Your task to perform on an android device: Search for "panasonic triple a" on costco.com, select the first entry, add it to the cart, then select checkout. Image 0: 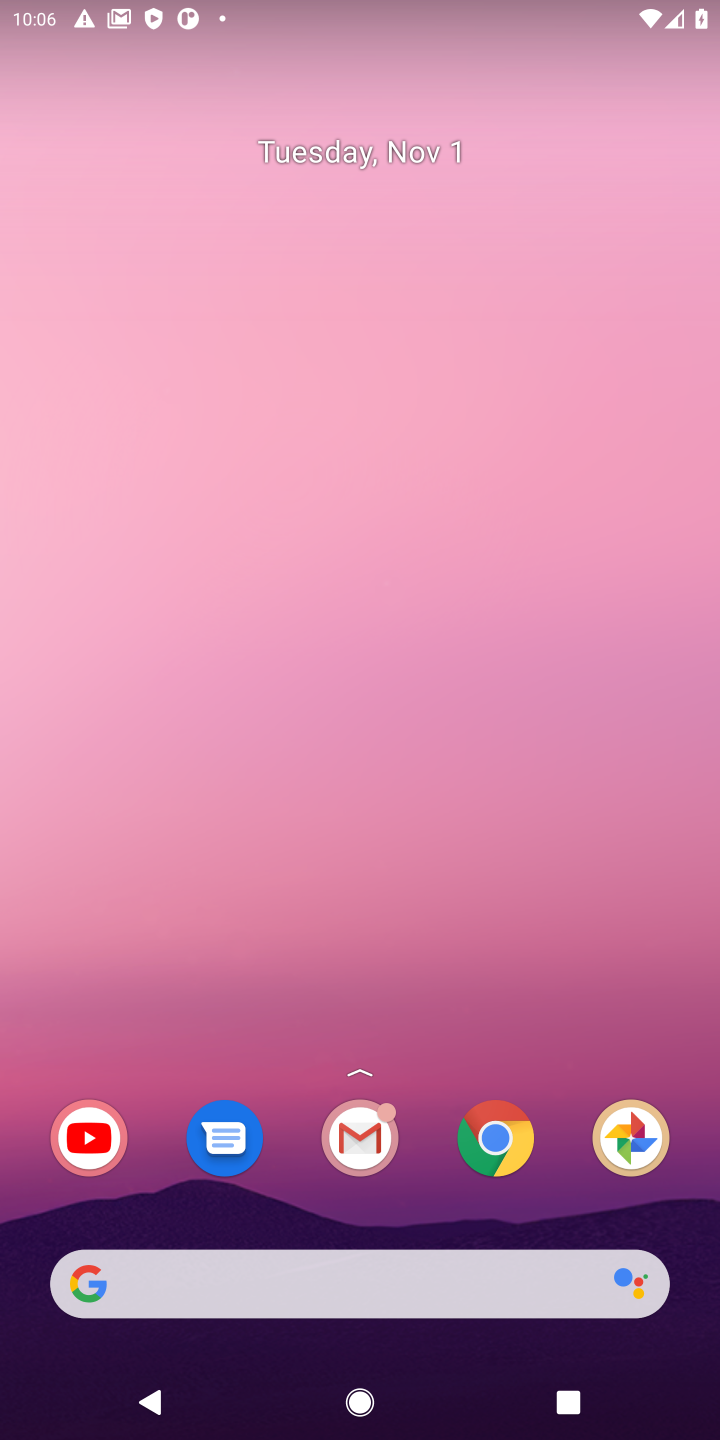
Step 0: click (496, 1147)
Your task to perform on an android device: Search for "panasonic triple a" on costco.com, select the first entry, add it to the cart, then select checkout. Image 1: 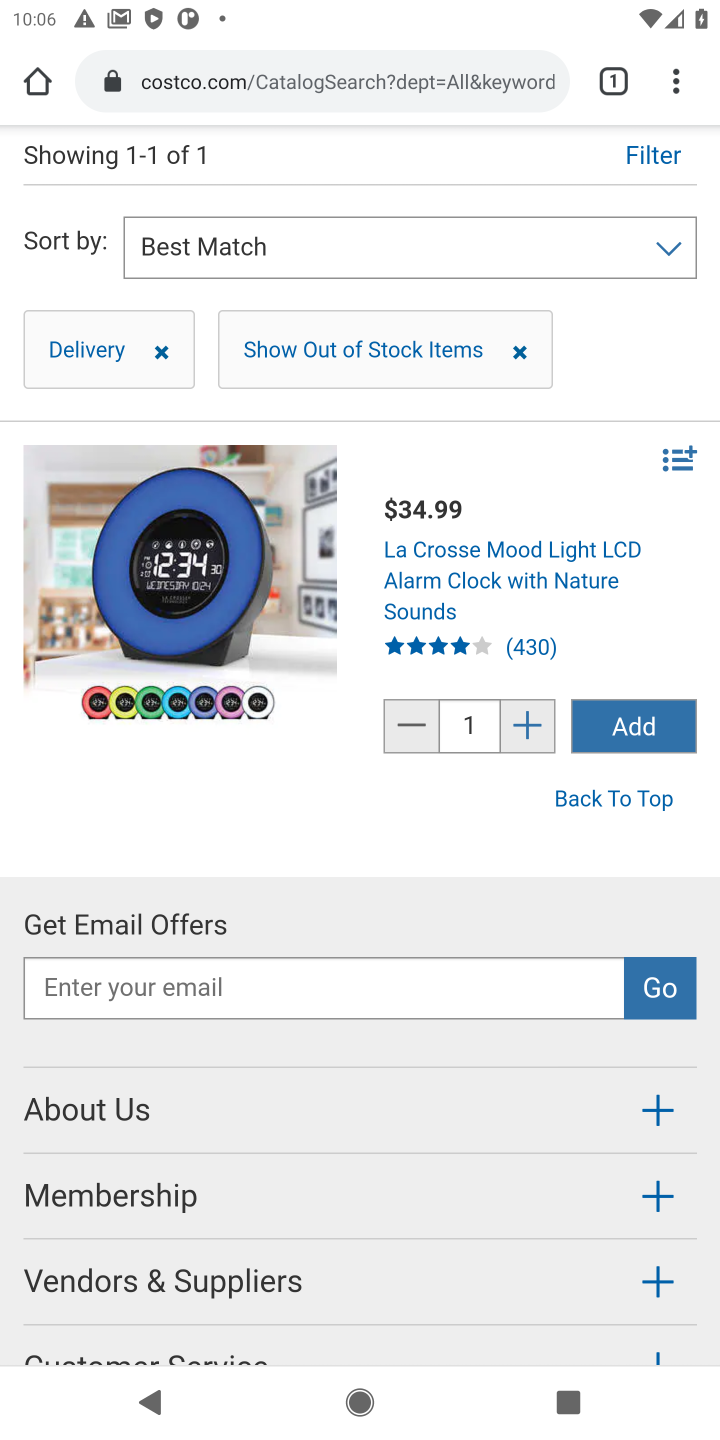
Step 1: click (261, 91)
Your task to perform on an android device: Search for "panasonic triple a" on costco.com, select the first entry, add it to the cart, then select checkout. Image 2: 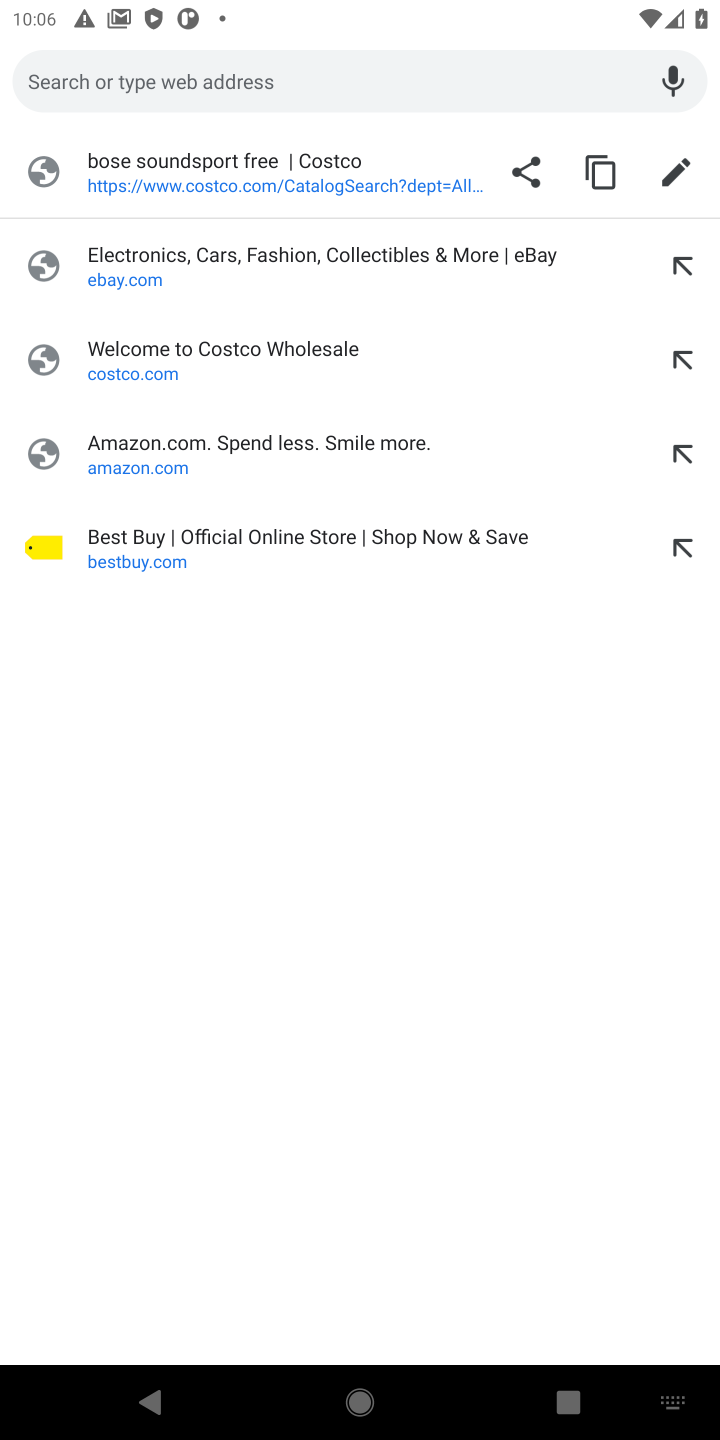
Step 2: type "costco.com"
Your task to perform on an android device: Search for "panasonic triple a" on costco.com, select the first entry, add it to the cart, then select checkout. Image 3: 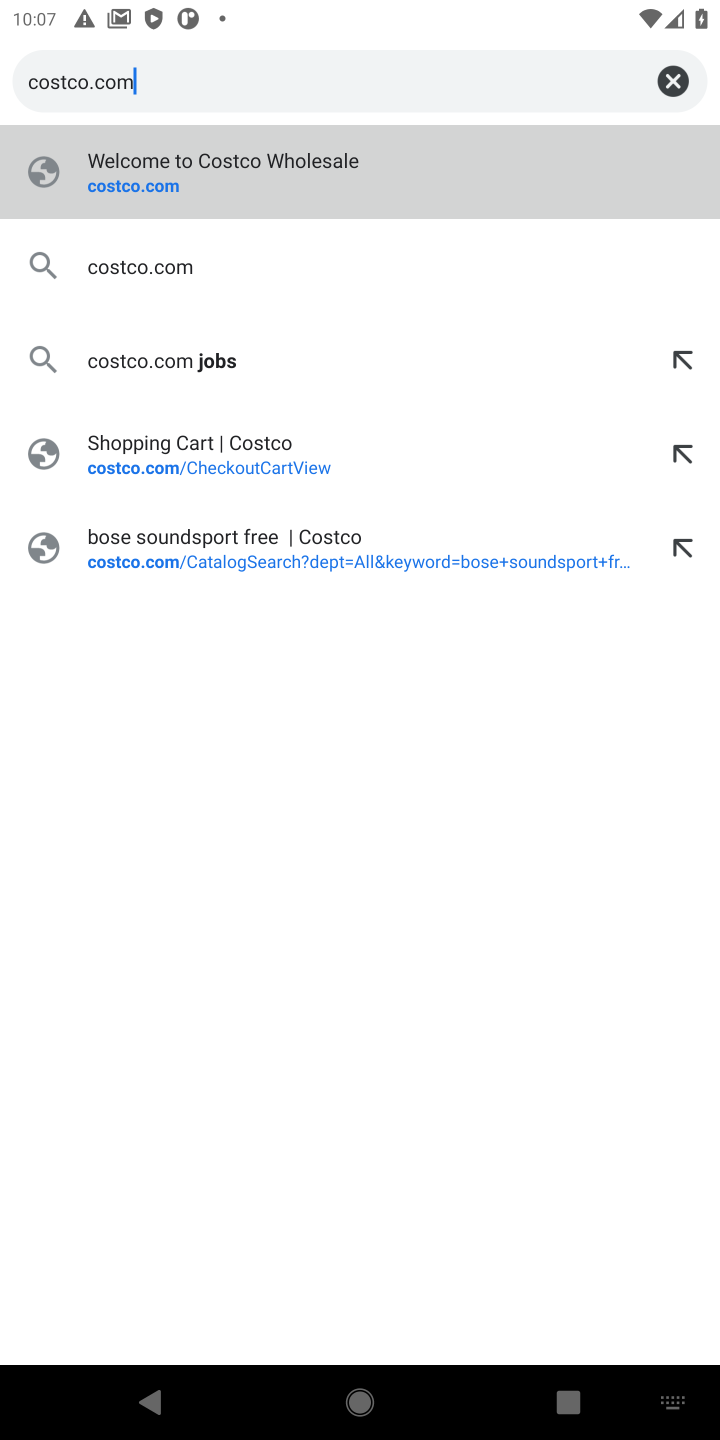
Step 3: click (127, 178)
Your task to perform on an android device: Search for "panasonic triple a" on costco.com, select the first entry, add it to the cart, then select checkout. Image 4: 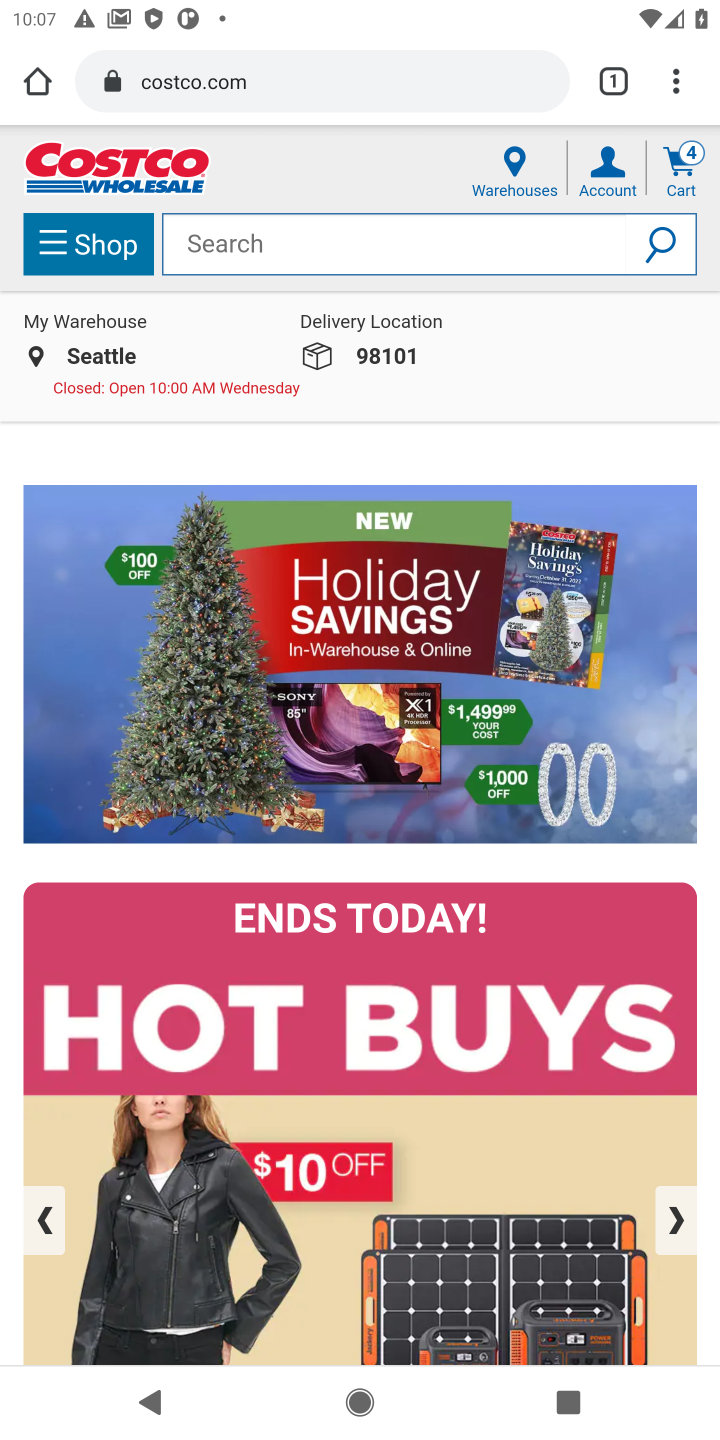
Step 4: click (223, 242)
Your task to perform on an android device: Search for "panasonic triple a" on costco.com, select the first entry, add it to the cart, then select checkout. Image 5: 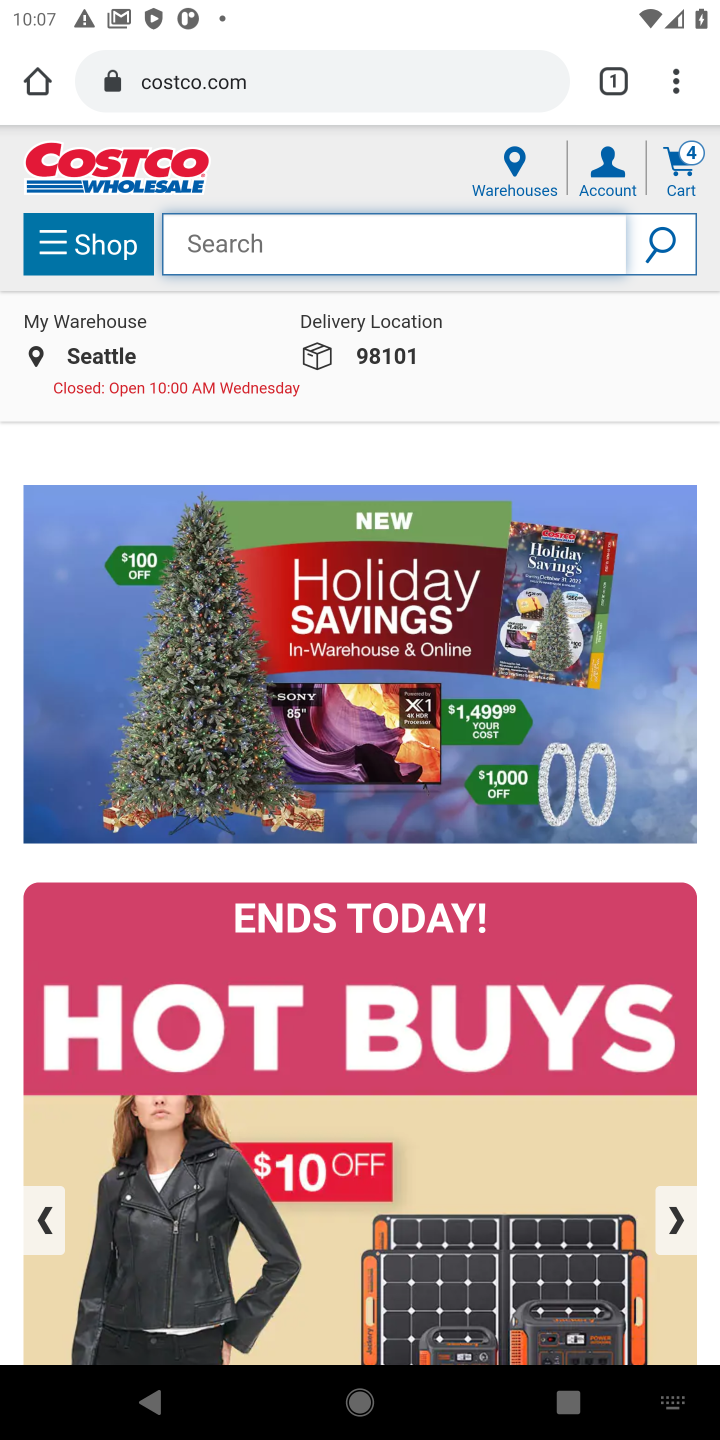
Step 5: type "panasonic triple a"
Your task to perform on an android device: Search for "panasonic triple a" on costco.com, select the first entry, add it to the cart, then select checkout. Image 6: 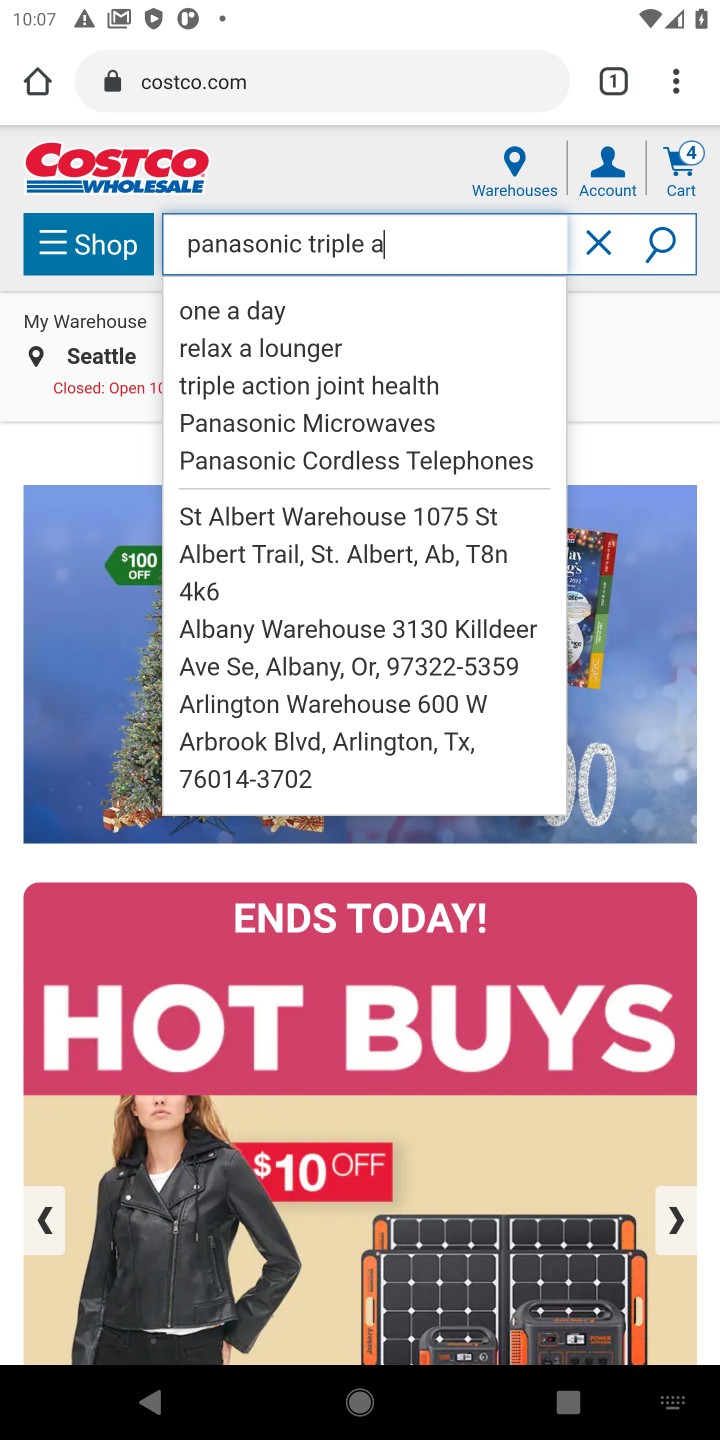
Step 6: click (656, 252)
Your task to perform on an android device: Search for "panasonic triple a" on costco.com, select the first entry, add it to the cart, then select checkout. Image 7: 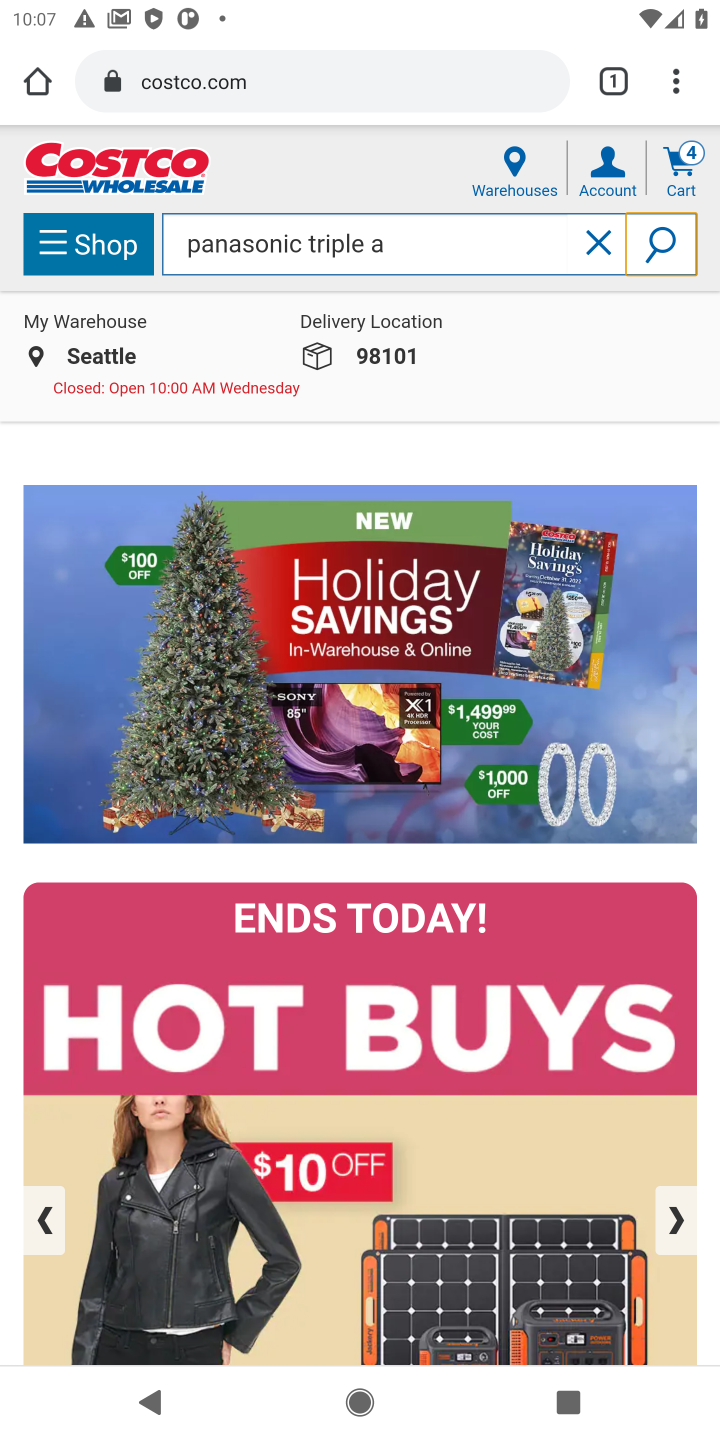
Step 7: click (656, 252)
Your task to perform on an android device: Search for "panasonic triple a" on costco.com, select the first entry, add it to the cart, then select checkout. Image 8: 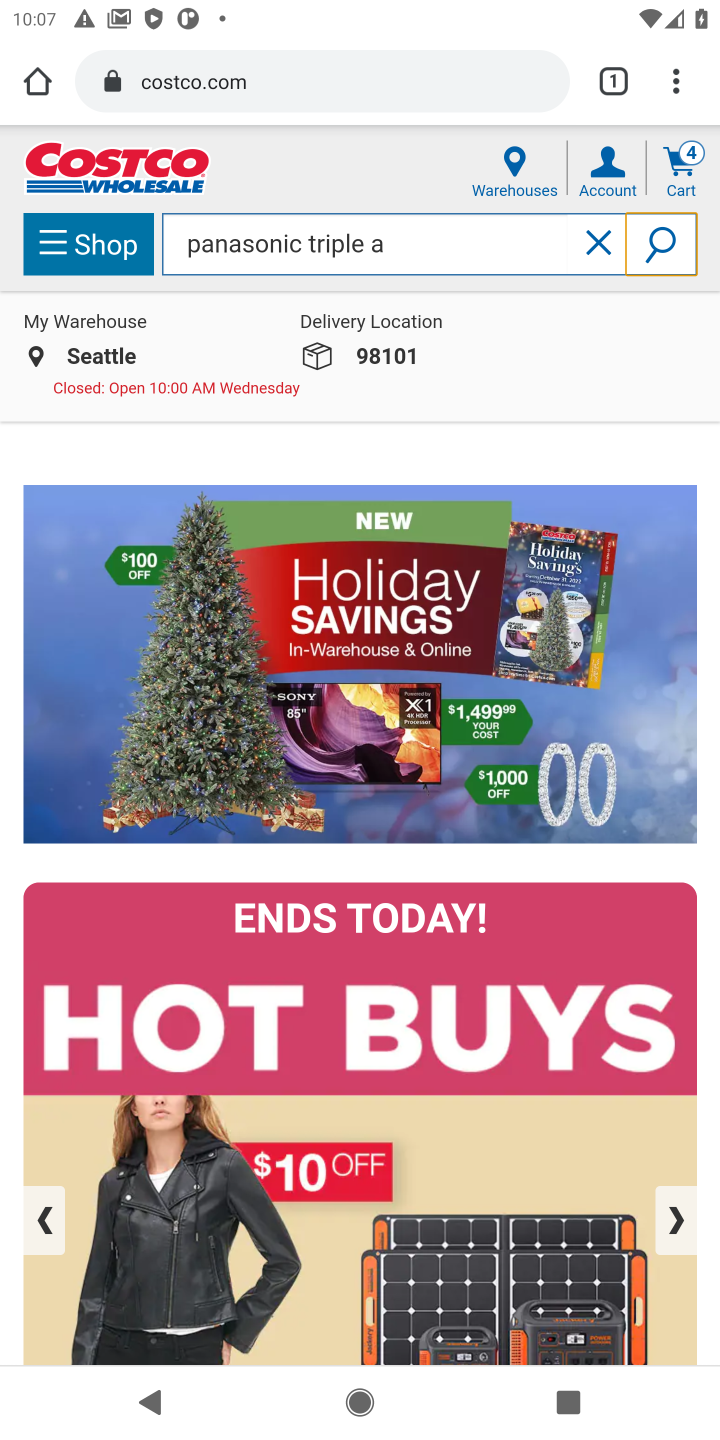
Step 8: click (654, 250)
Your task to perform on an android device: Search for "panasonic triple a" on costco.com, select the first entry, add it to the cart, then select checkout. Image 9: 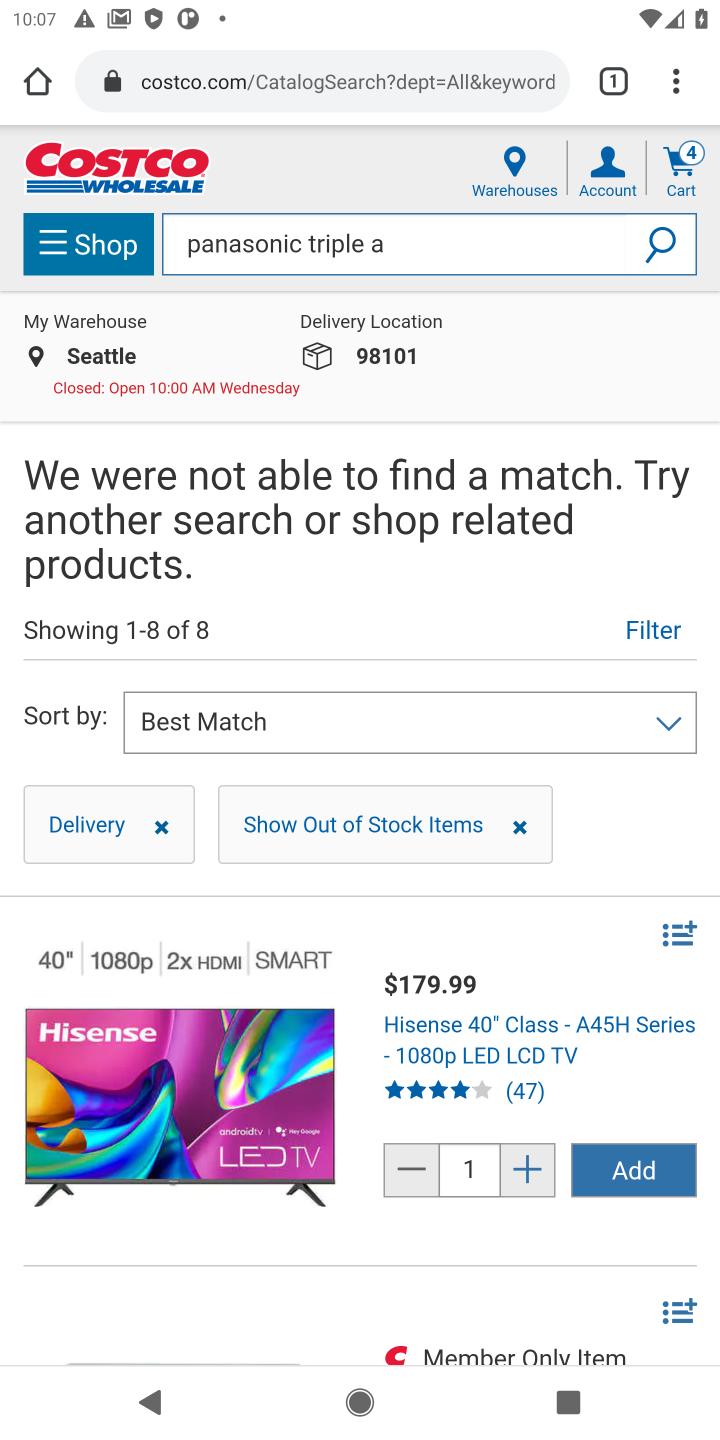
Step 9: task complete